Your task to perform on an android device: Go to ESPN.com Image 0: 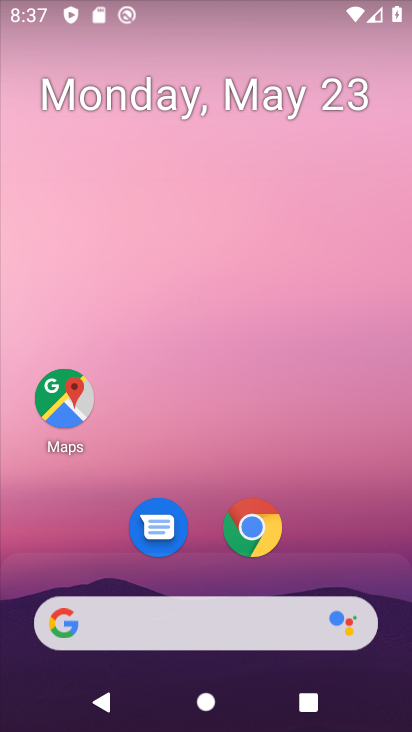
Step 0: drag from (342, 506) to (207, 9)
Your task to perform on an android device: Go to ESPN.com Image 1: 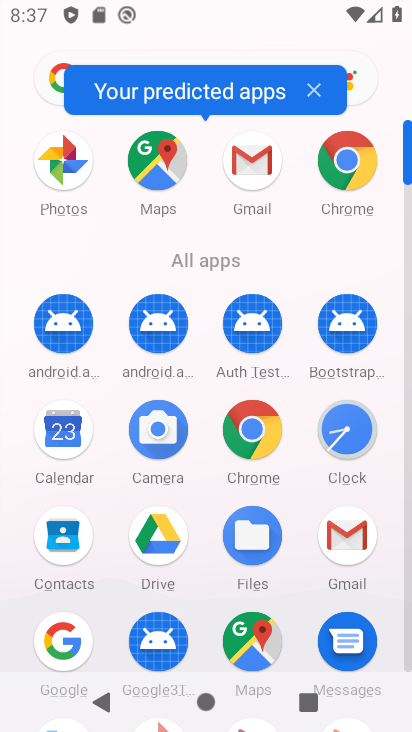
Step 1: drag from (6, 562) to (0, 227)
Your task to perform on an android device: Go to ESPN.com Image 2: 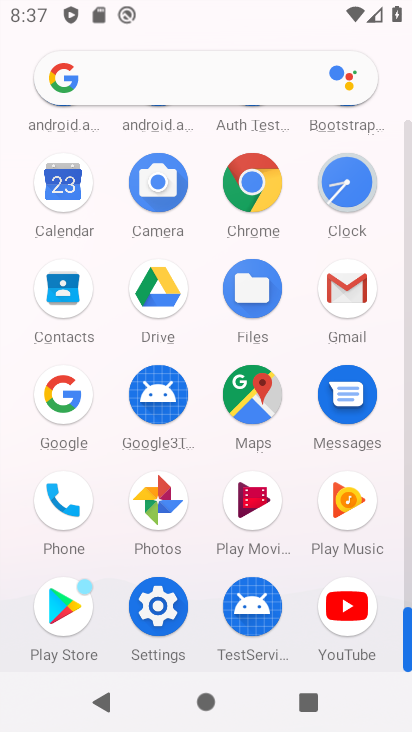
Step 2: click (247, 180)
Your task to perform on an android device: Go to ESPN.com Image 3: 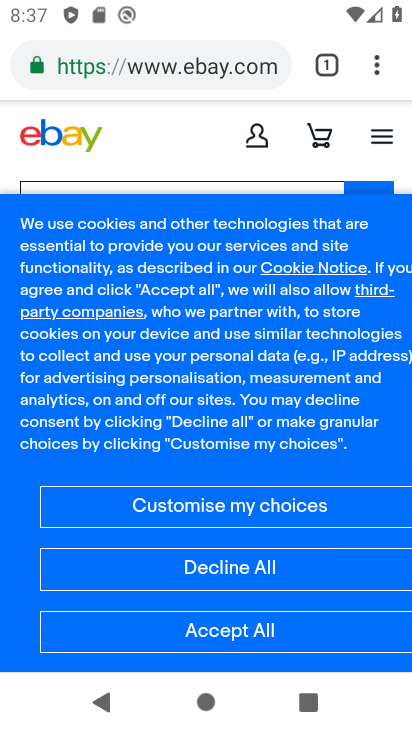
Step 3: click (149, 63)
Your task to perform on an android device: Go to ESPN.com Image 4: 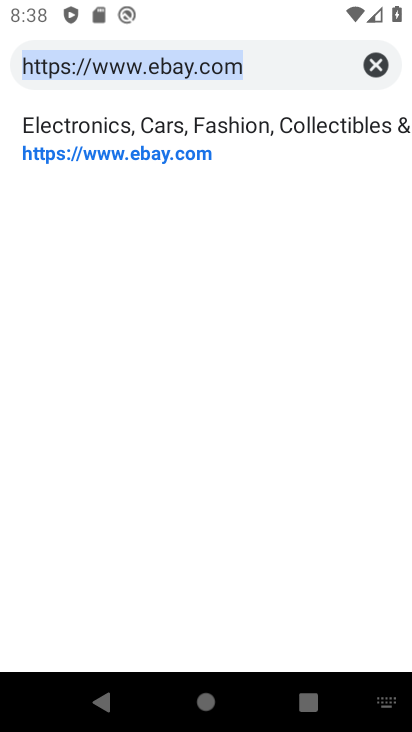
Step 4: click (385, 62)
Your task to perform on an android device: Go to ESPN.com Image 5: 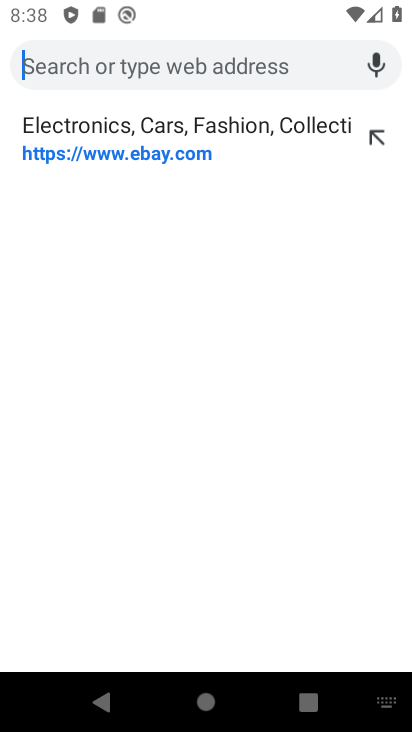
Step 5: type "ESPN.com"
Your task to perform on an android device: Go to ESPN.com Image 6: 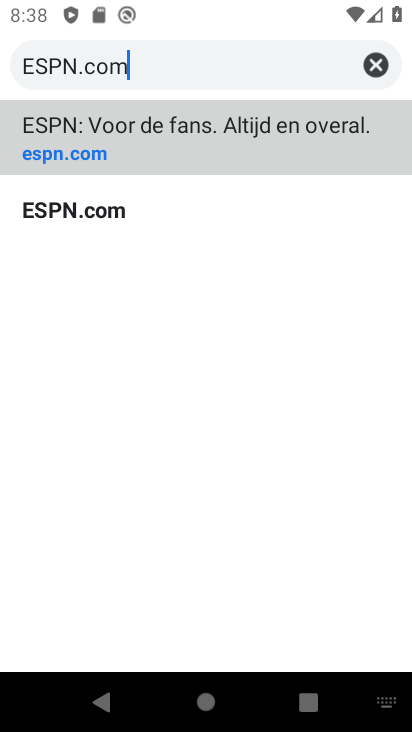
Step 6: type ""
Your task to perform on an android device: Go to ESPN.com Image 7: 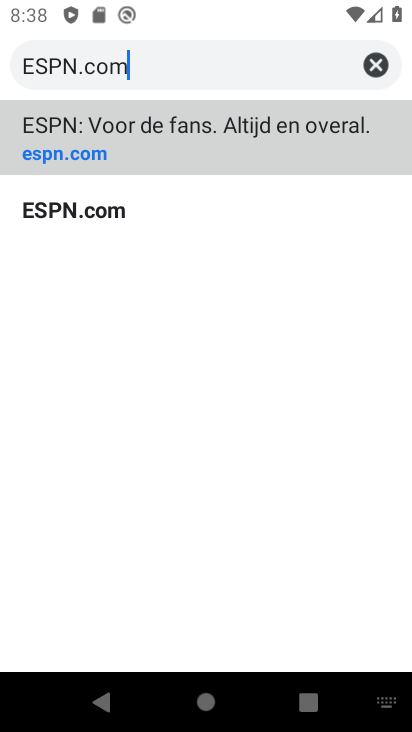
Step 7: click (139, 147)
Your task to perform on an android device: Go to ESPN.com Image 8: 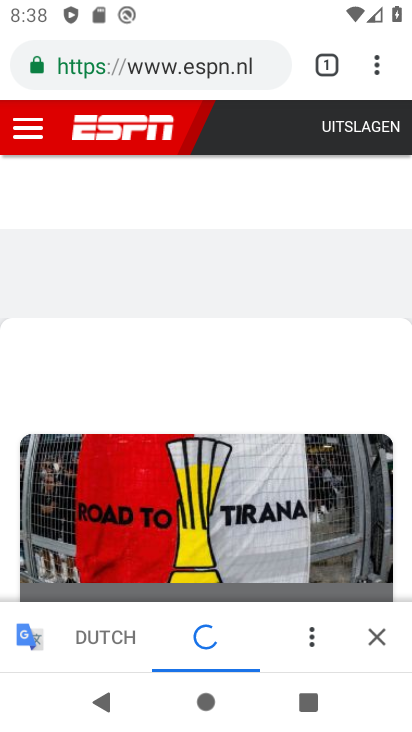
Step 8: drag from (260, 518) to (249, 182)
Your task to perform on an android device: Go to ESPN.com Image 9: 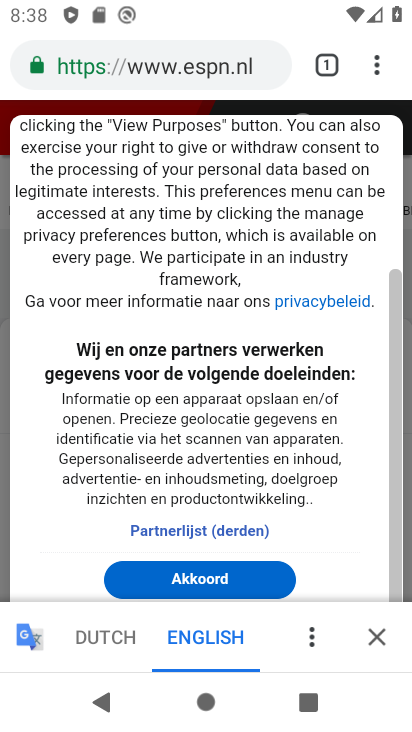
Step 9: click (220, 578)
Your task to perform on an android device: Go to ESPN.com Image 10: 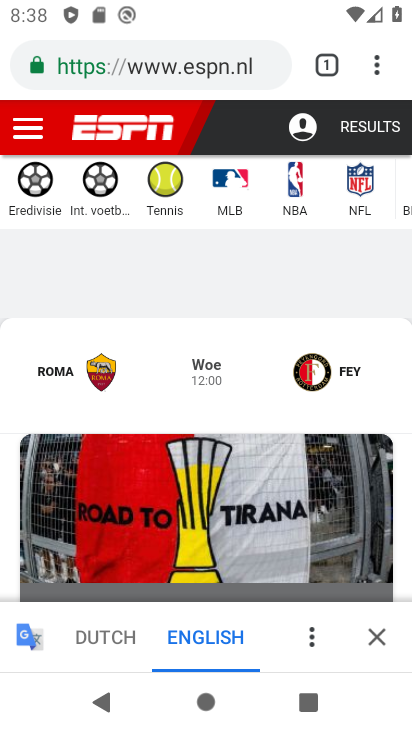
Step 10: task complete